Your task to perform on an android device: Open the Play Movies app and select the watchlist tab. Image 0: 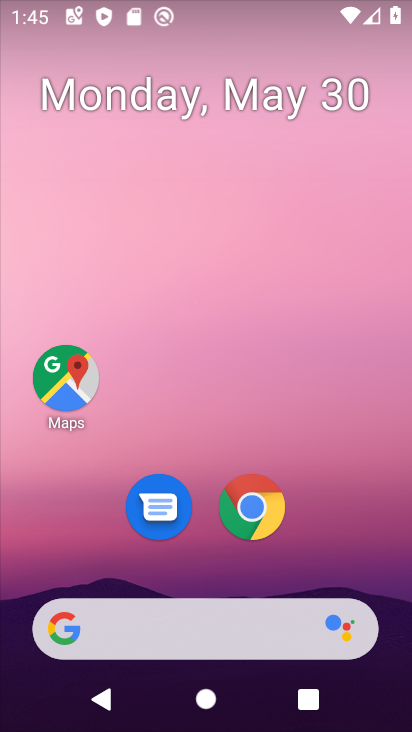
Step 0: drag from (146, 582) to (203, 73)
Your task to perform on an android device: Open the Play Movies app and select the watchlist tab. Image 1: 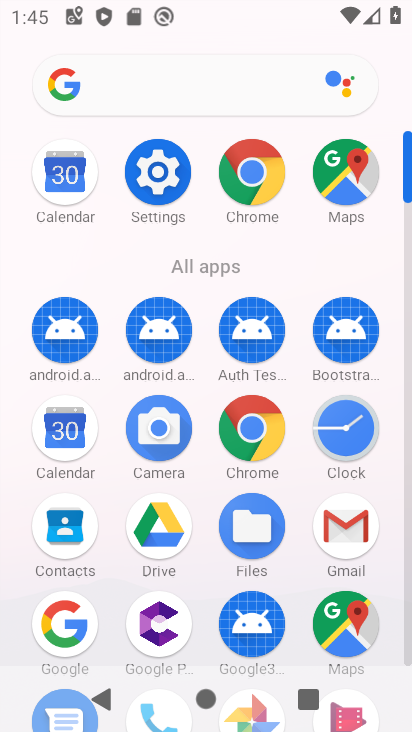
Step 1: click (266, 178)
Your task to perform on an android device: Open the Play Movies app and select the watchlist tab. Image 2: 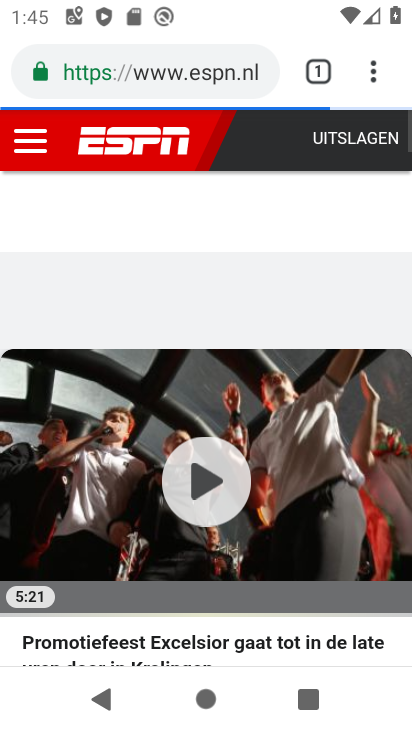
Step 2: press back button
Your task to perform on an android device: Open the Play Movies app and select the watchlist tab. Image 3: 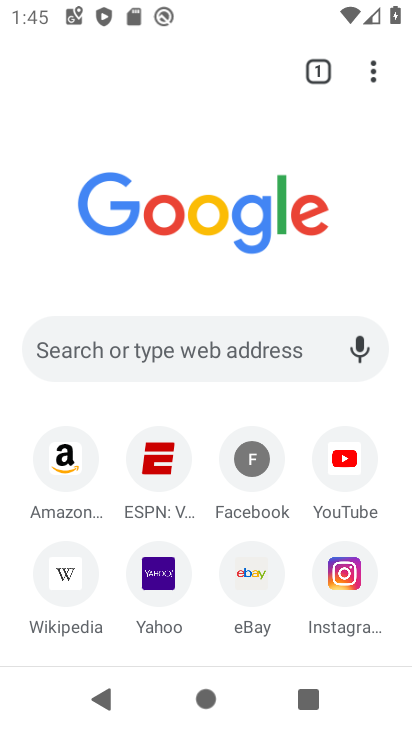
Step 3: press back button
Your task to perform on an android device: Open the Play Movies app and select the watchlist tab. Image 4: 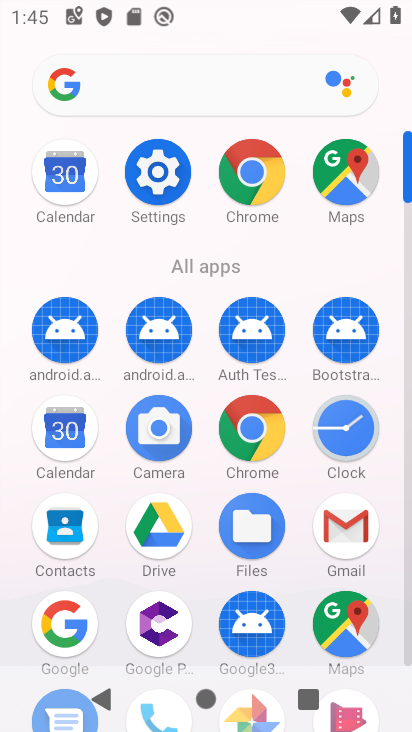
Step 4: drag from (272, 643) to (283, 282)
Your task to perform on an android device: Open the Play Movies app and select the watchlist tab. Image 5: 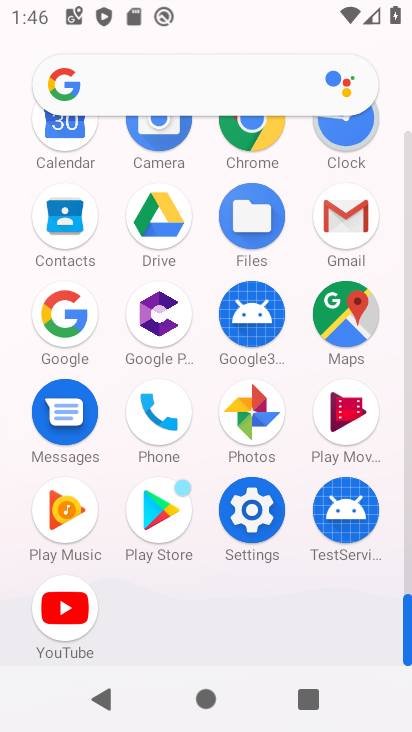
Step 5: click (354, 397)
Your task to perform on an android device: Open the Play Movies app and select the watchlist tab. Image 6: 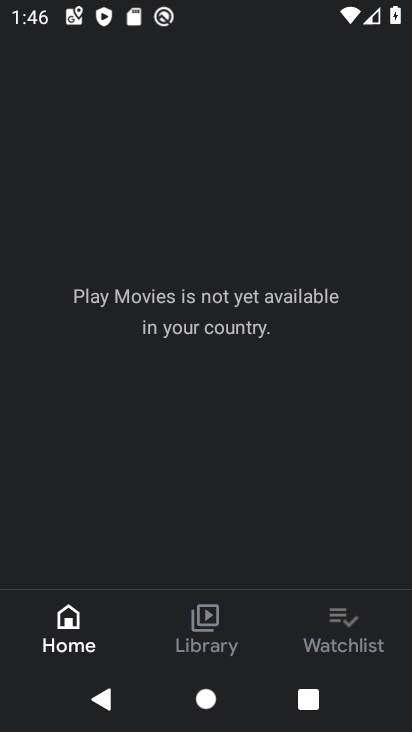
Step 6: click (327, 632)
Your task to perform on an android device: Open the Play Movies app and select the watchlist tab. Image 7: 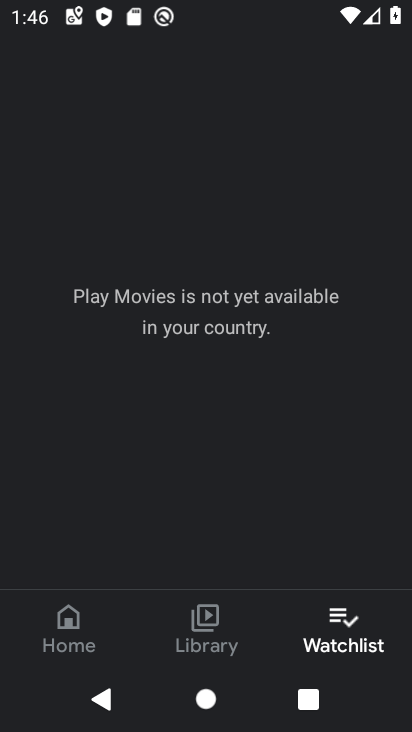
Step 7: task complete